Your task to perform on an android device: Open calendar and show me the fourth week of next month Image 0: 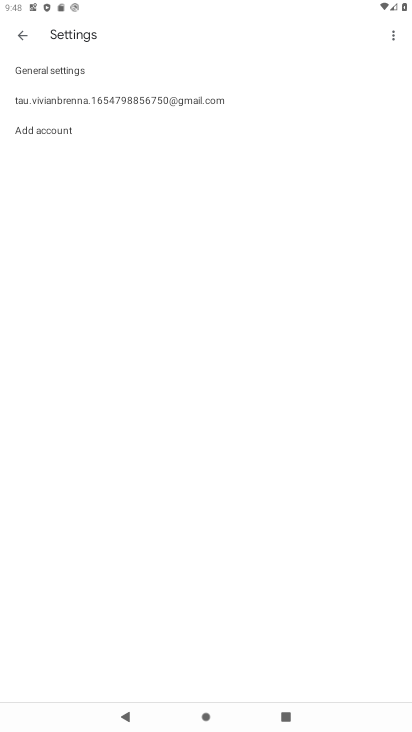
Step 0: press home button
Your task to perform on an android device: Open calendar and show me the fourth week of next month Image 1: 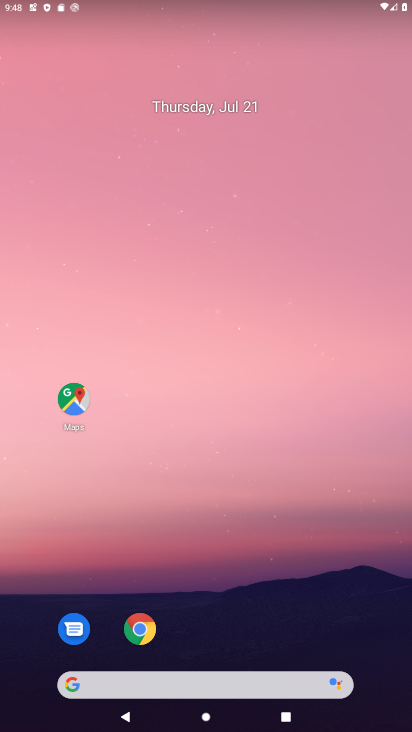
Step 1: click (169, 108)
Your task to perform on an android device: Open calendar and show me the fourth week of next month Image 2: 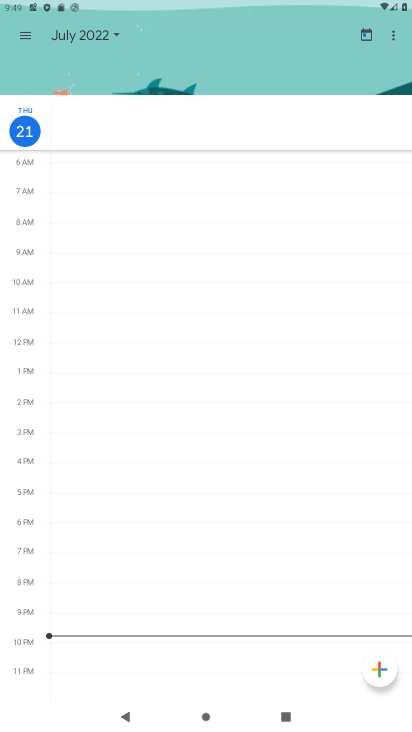
Step 2: click (130, 34)
Your task to perform on an android device: Open calendar and show me the fourth week of next month Image 3: 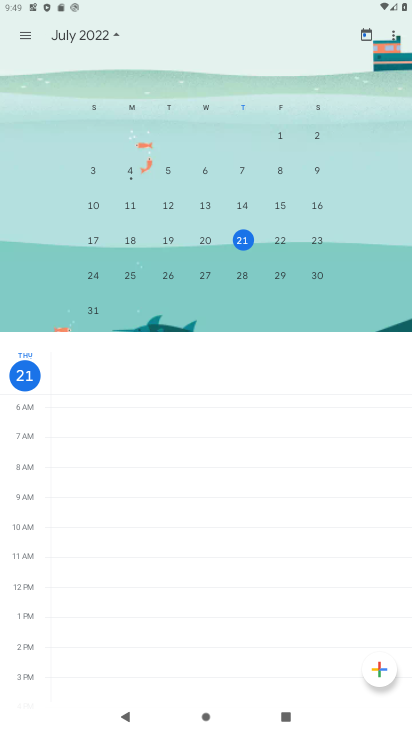
Step 3: drag from (342, 218) to (28, 215)
Your task to perform on an android device: Open calendar and show me the fourth week of next month Image 4: 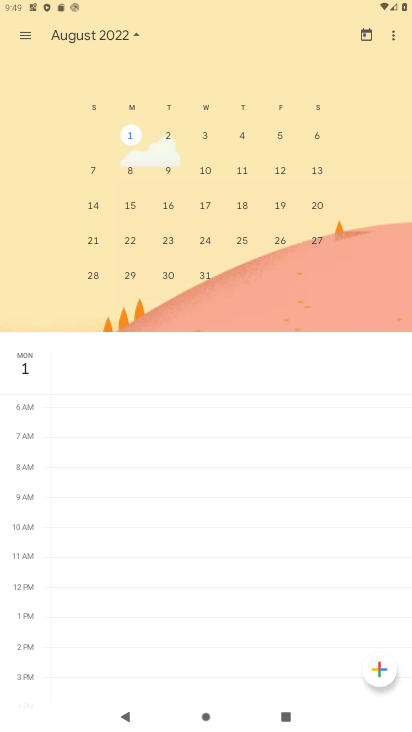
Step 4: click (132, 235)
Your task to perform on an android device: Open calendar and show me the fourth week of next month Image 5: 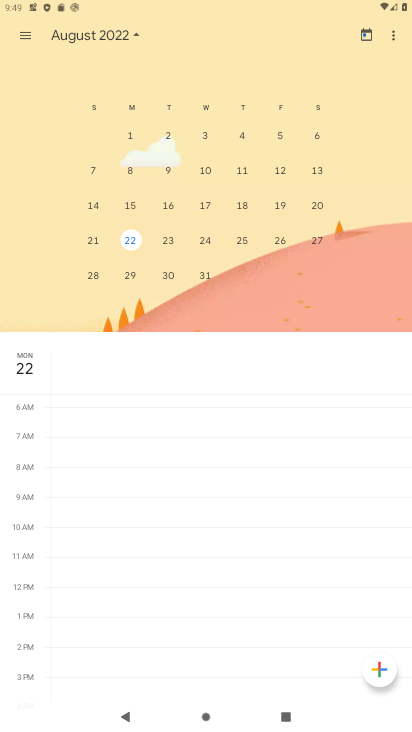
Step 5: task complete